Your task to perform on an android device: Open Reddit.com Image 0: 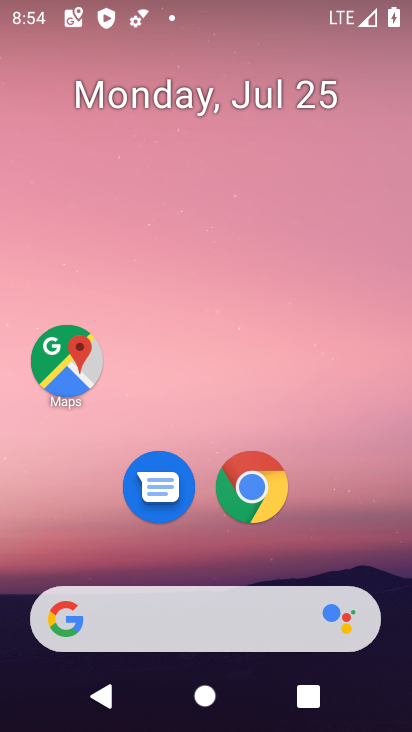
Step 0: click (274, 480)
Your task to perform on an android device: Open Reddit.com Image 1: 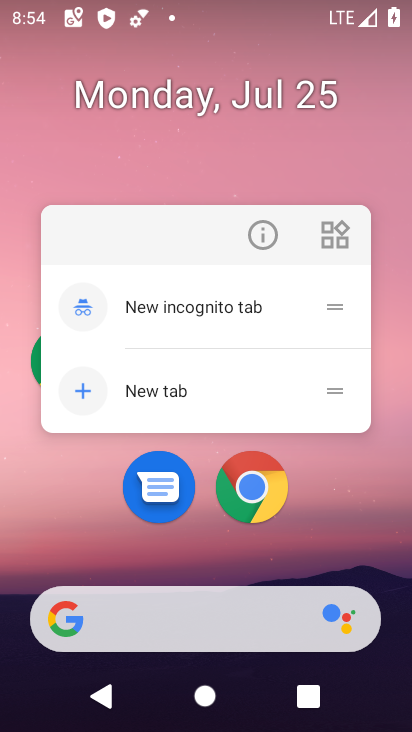
Step 1: click (263, 464)
Your task to perform on an android device: Open Reddit.com Image 2: 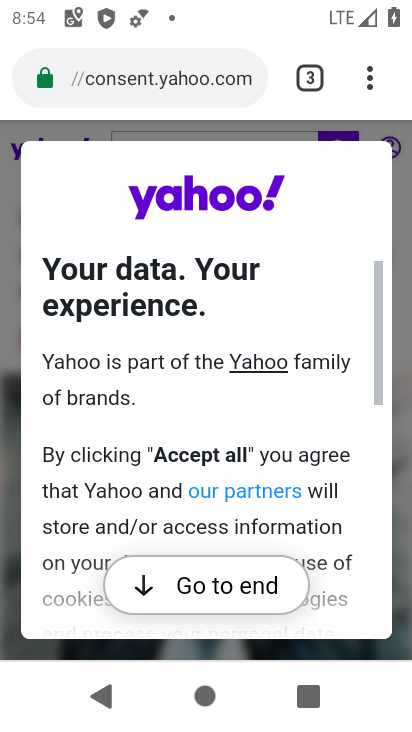
Step 2: click (306, 64)
Your task to perform on an android device: Open Reddit.com Image 3: 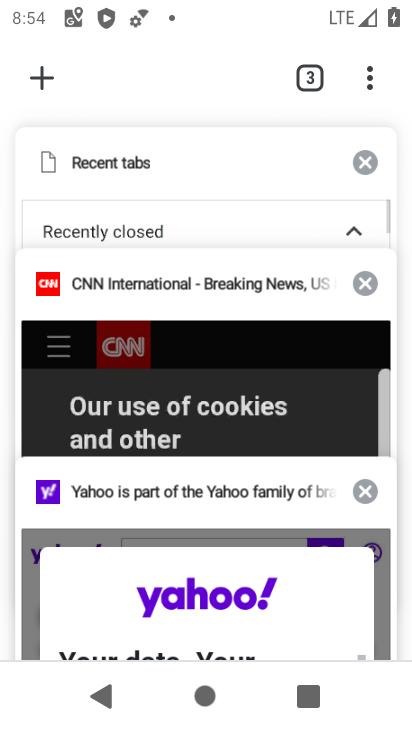
Step 3: click (40, 70)
Your task to perform on an android device: Open Reddit.com Image 4: 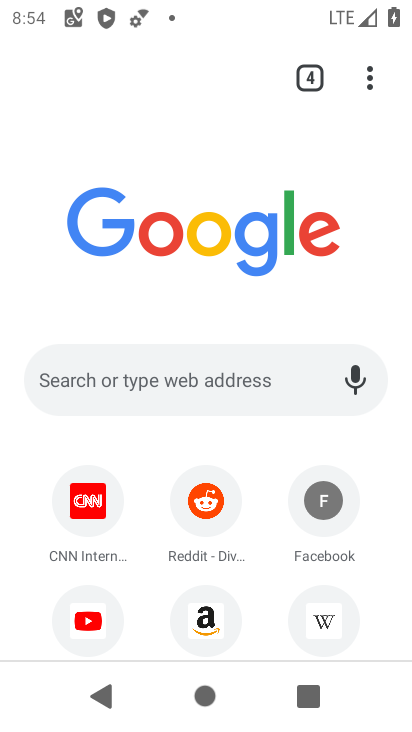
Step 4: click (211, 528)
Your task to perform on an android device: Open Reddit.com Image 5: 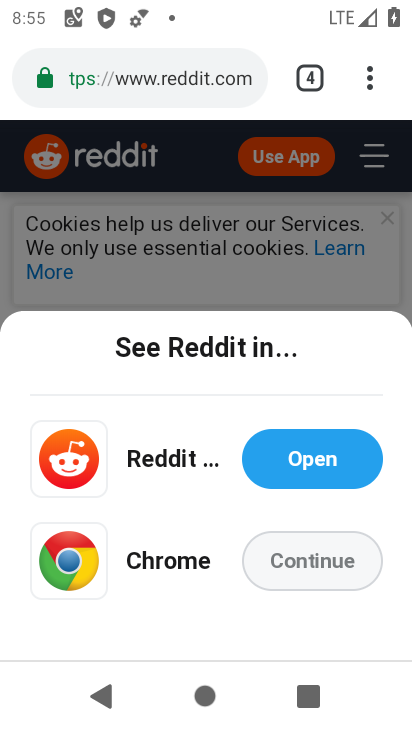
Step 5: task complete